Your task to perform on an android device: turn off location Image 0: 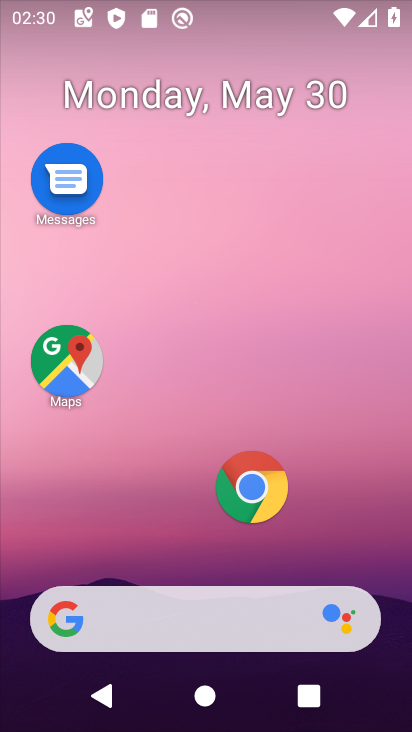
Step 0: drag from (200, 549) to (235, 10)
Your task to perform on an android device: turn off location Image 1: 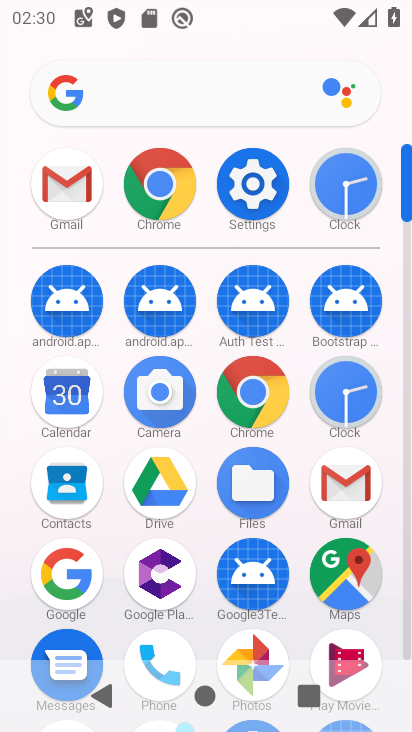
Step 1: click (244, 195)
Your task to perform on an android device: turn off location Image 2: 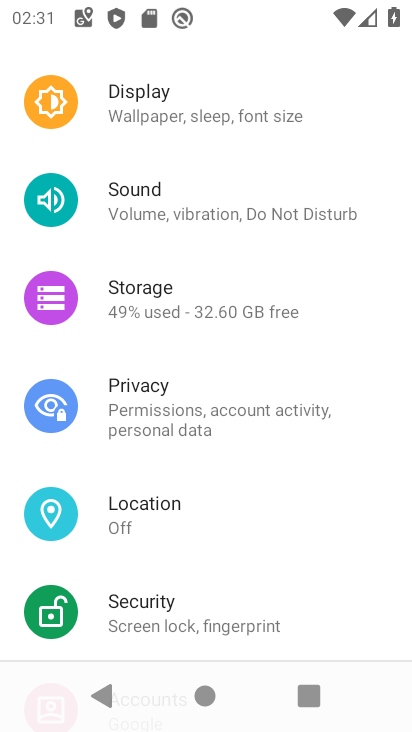
Step 2: click (142, 525)
Your task to perform on an android device: turn off location Image 3: 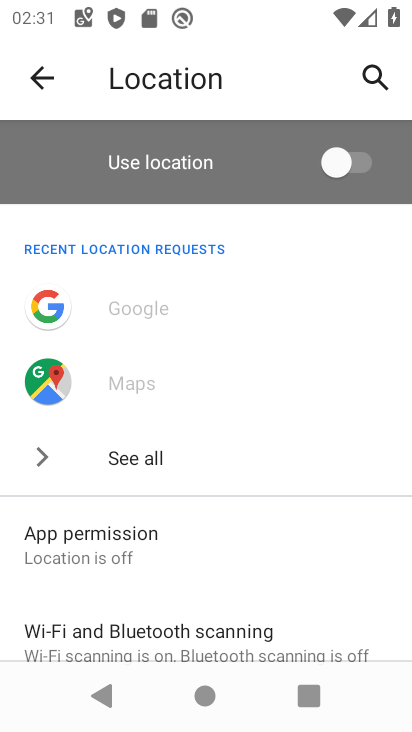
Step 3: task complete